Your task to perform on an android device: Open Yahoo.com Image 0: 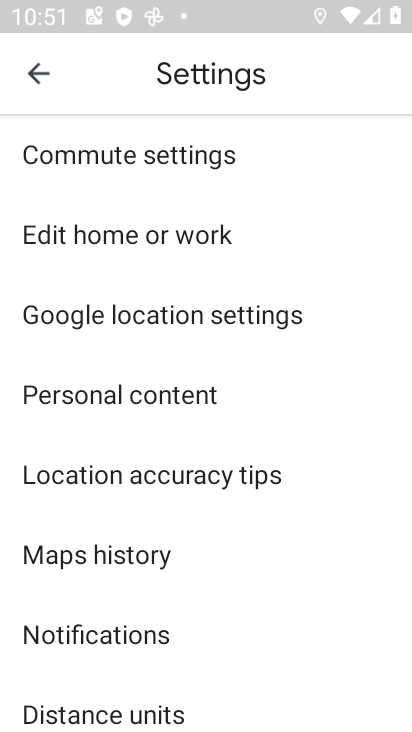
Step 0: press home button
Your task to perform on an android device: Open Yahoo.com Image 1: 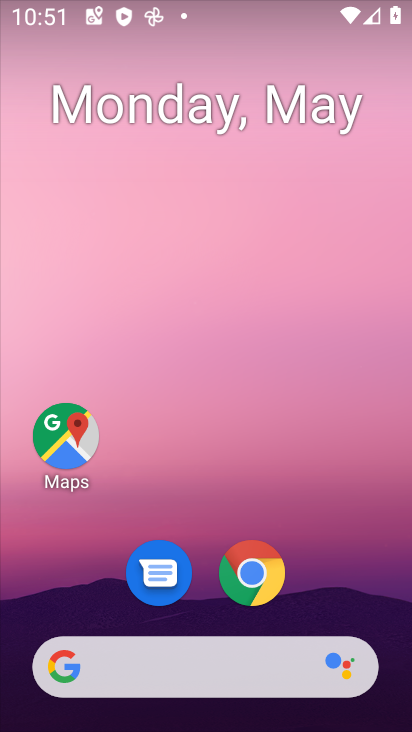
Step 1: click (268, 585)
Your task to perform on an android device: Open Yahoo.com Image 2: 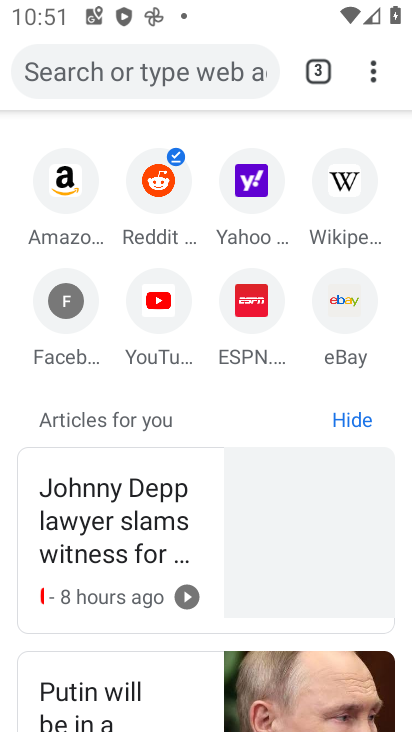
Step 2: click (253, 168)
Your task to perform on an android device: Open Yahoo.com Image 3: 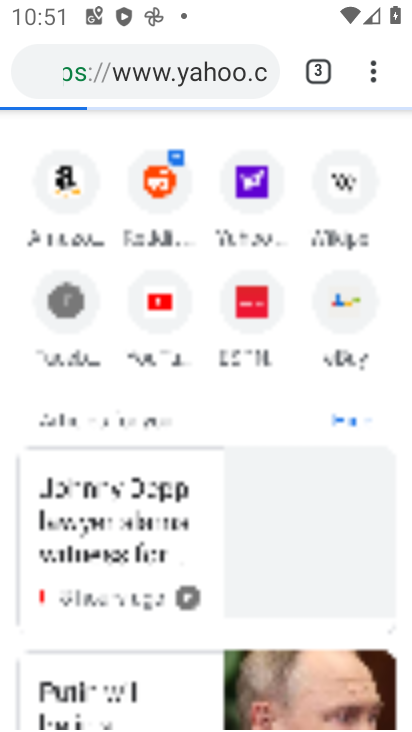
Step 3: task complete